Your task to perform on an android device: What is the news today? Image 0: 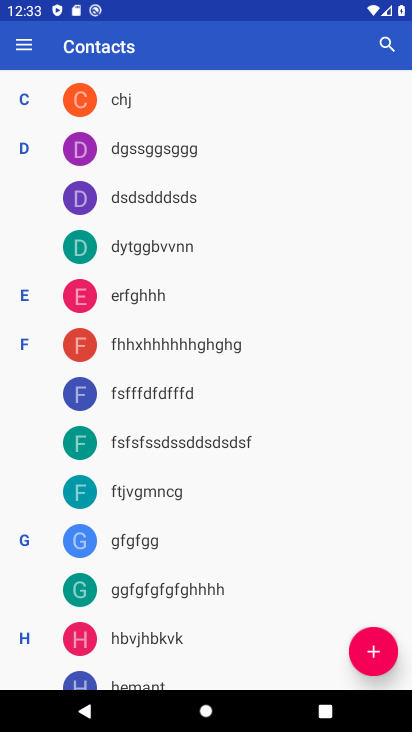
Step 0: press home button
Your task to perform on an android device: What is the news today? Image 1: 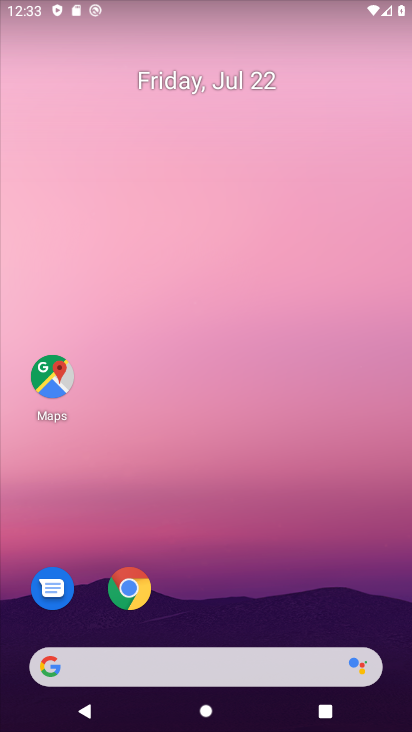
Step 1: click (187, 656)
Your task to perform on an android device: What is the news today? Image 2: 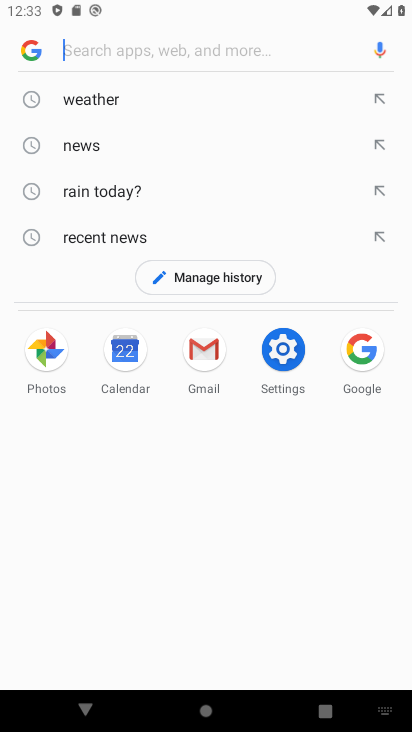
Step 2: click (74, 138)
Your task to perform on an android device: What is the news today? Image 3: 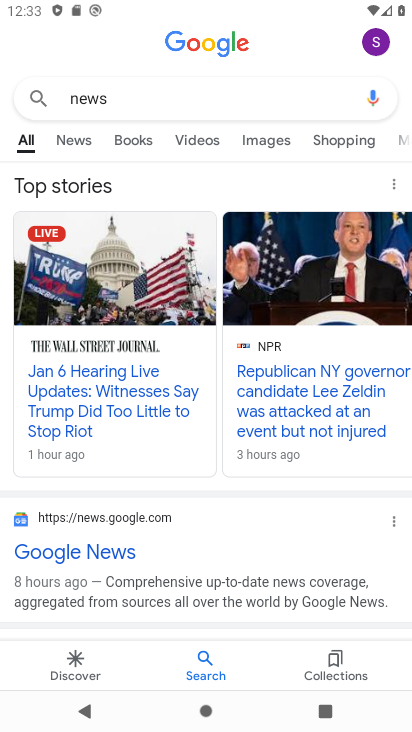
Step 3: task complete